Your task to perform on an android device: What's the weather today? Image 0: 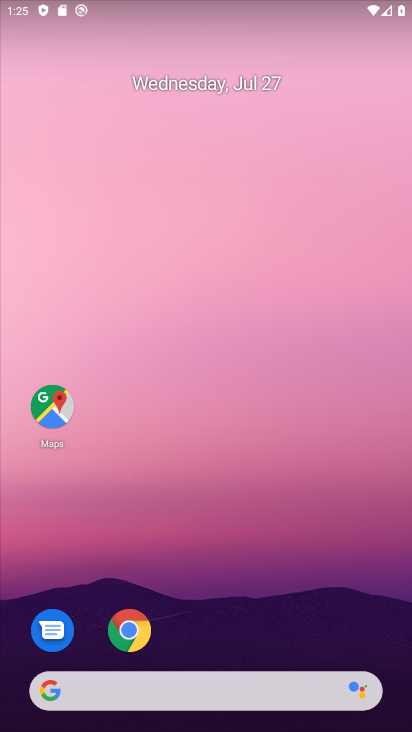
Step 0: drag from (5, 279) to (395, 301)
Your task to perform on an android device: What's the weather today? Image 1: 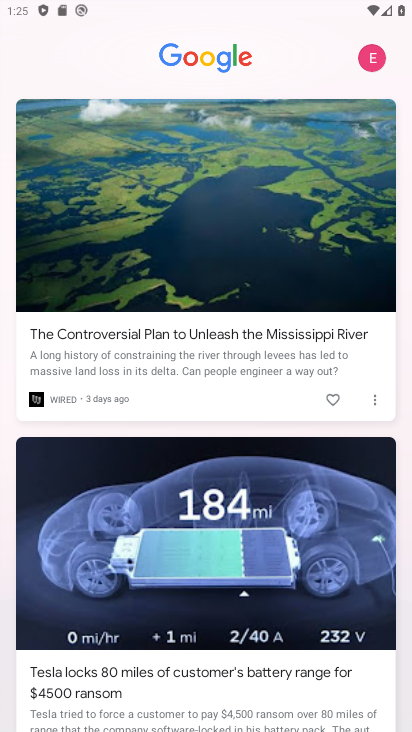
Step 1: drag from (231, 139) to (229, 384)
Your task to perform on an android device: What's the weather today? Image 2: 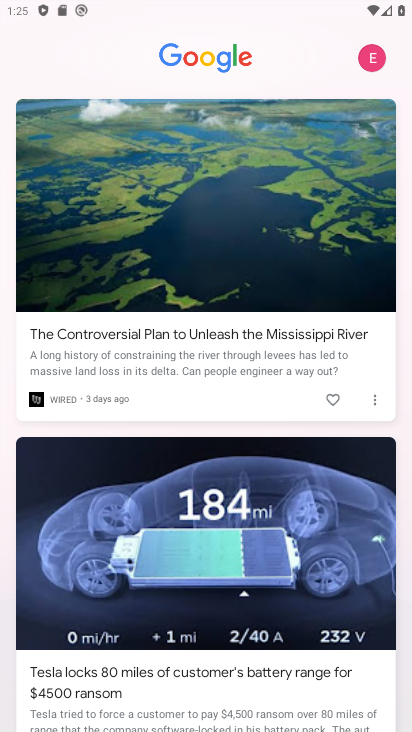
Step 2: drag from (406, 422) to (3, 381)
Your task to perform on an android device: What's the weather today? Image 3: 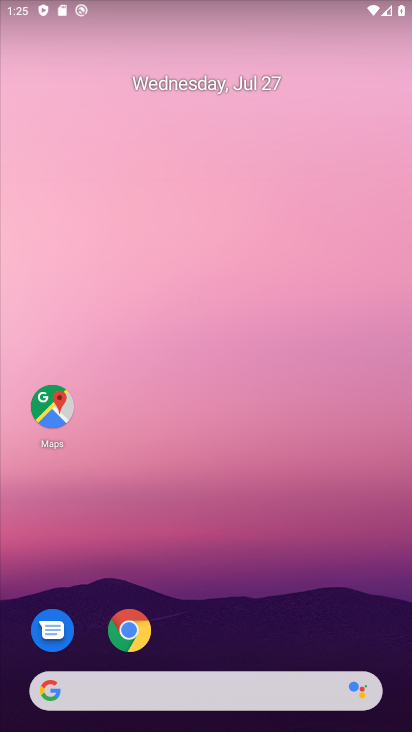
Step 3: click (150, 694)
Your task to perform on an android device: What's the weather today? Image 4: 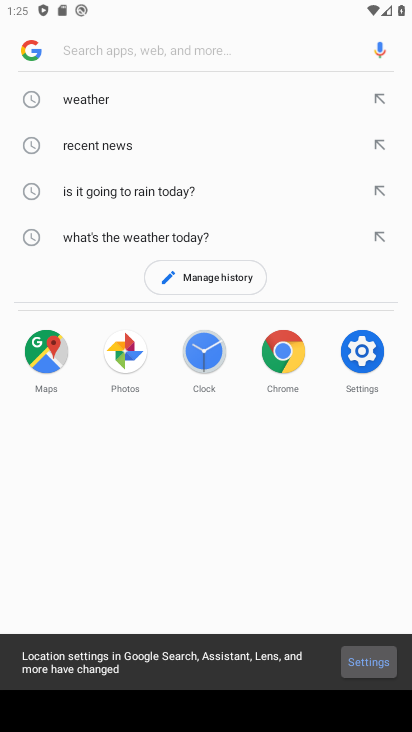
Step 4: click (80, 95)
Your task to perform on an android device: What's the weather today? Image 5: 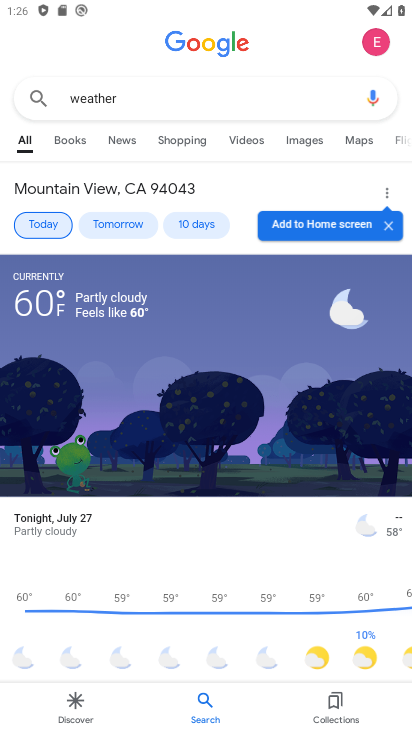
Step 5: task complete